Your task to perform on an android device: Open privacy settings Image 0: 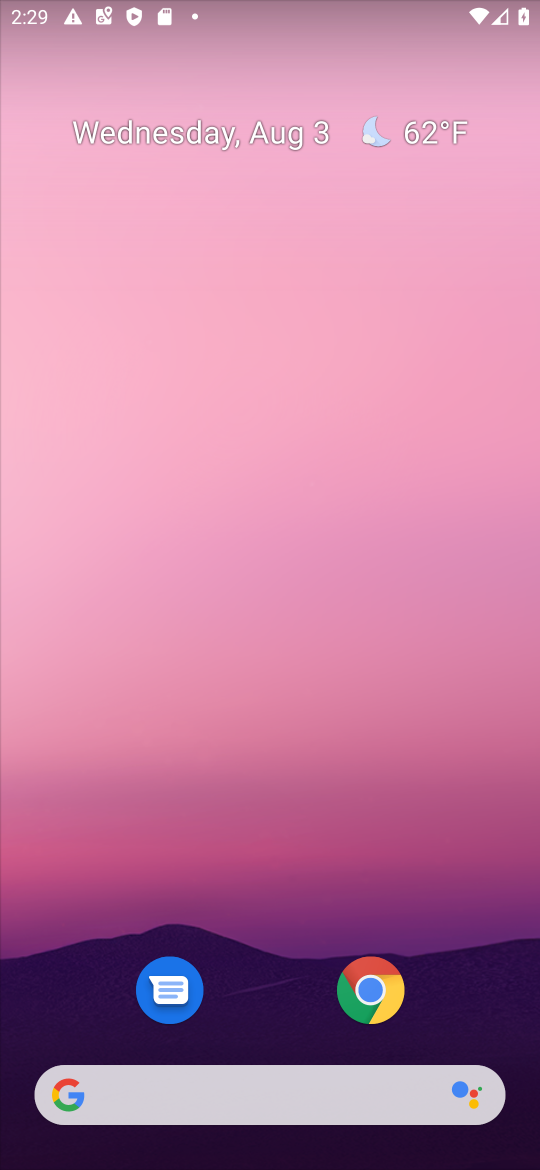
Step 0: drag from (274, 1088) to (398, 158)
Your task to perform on an android device: Open privacy settings Image 1: 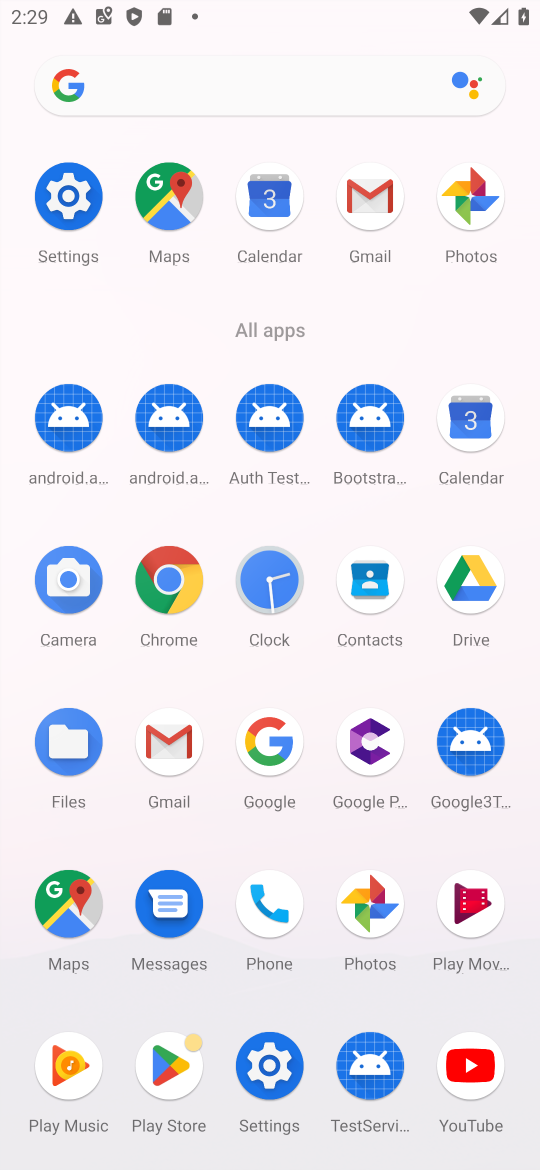
Step 1: click (67, 214)
Your task to perform on an android device: Open privacy settings Image 2: 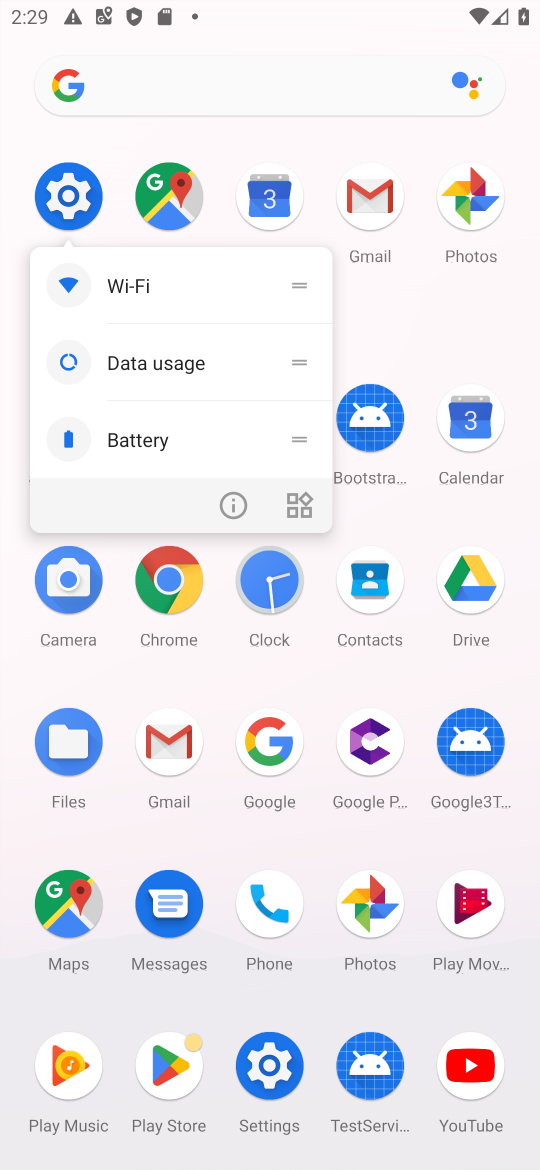
Step 2: click (57, 180)
Your task to perform on an android device: Open privacy settings Image 3: 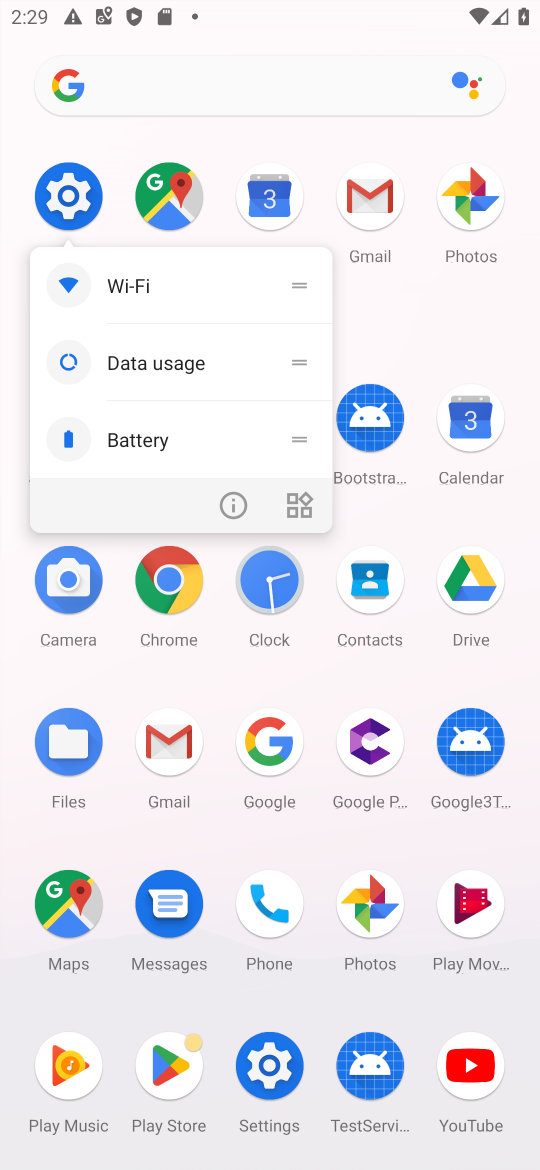
Step 3: click (75, 194)
Your task to perform on an android device: Open privacy settings Image 4: 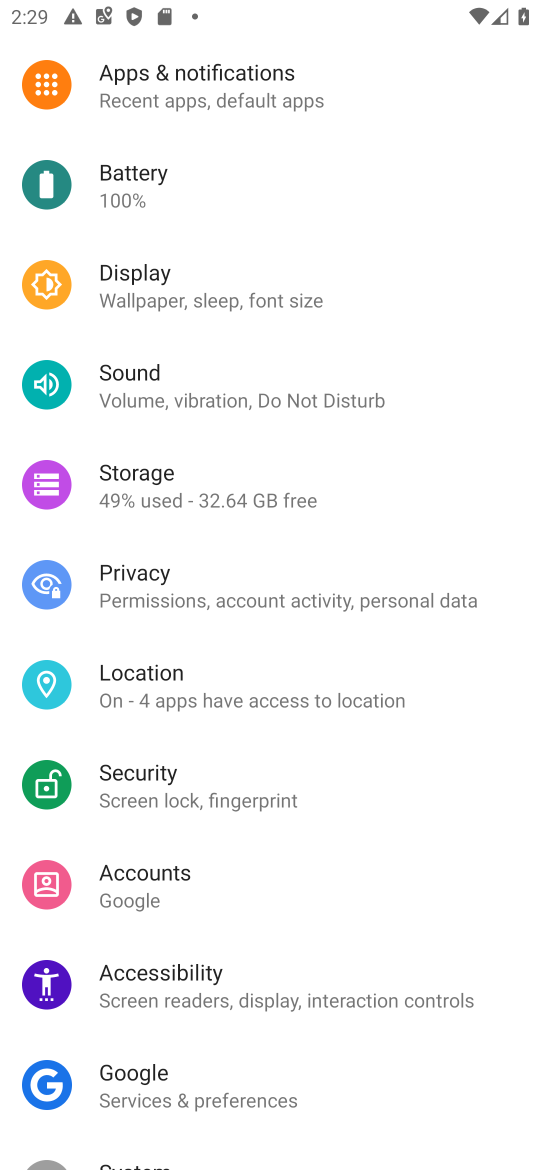
Step 4: click (195, 581)
Your task to perform on an android device: Open privacy settings Image 5: 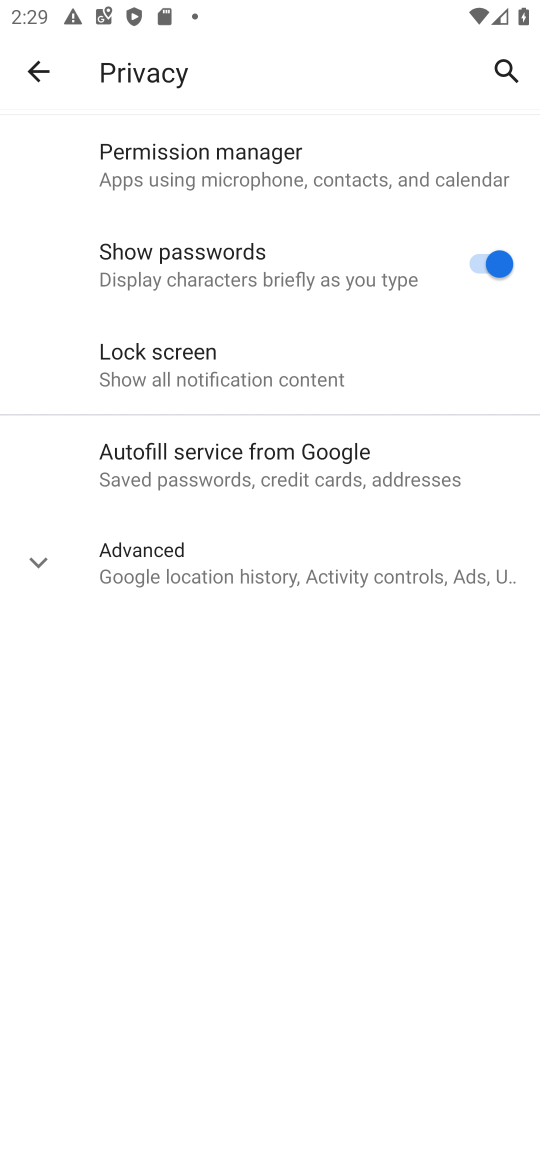
Step 5: click (170, 564)
Your task to perform on an android device: Open privacy settings Image 6: 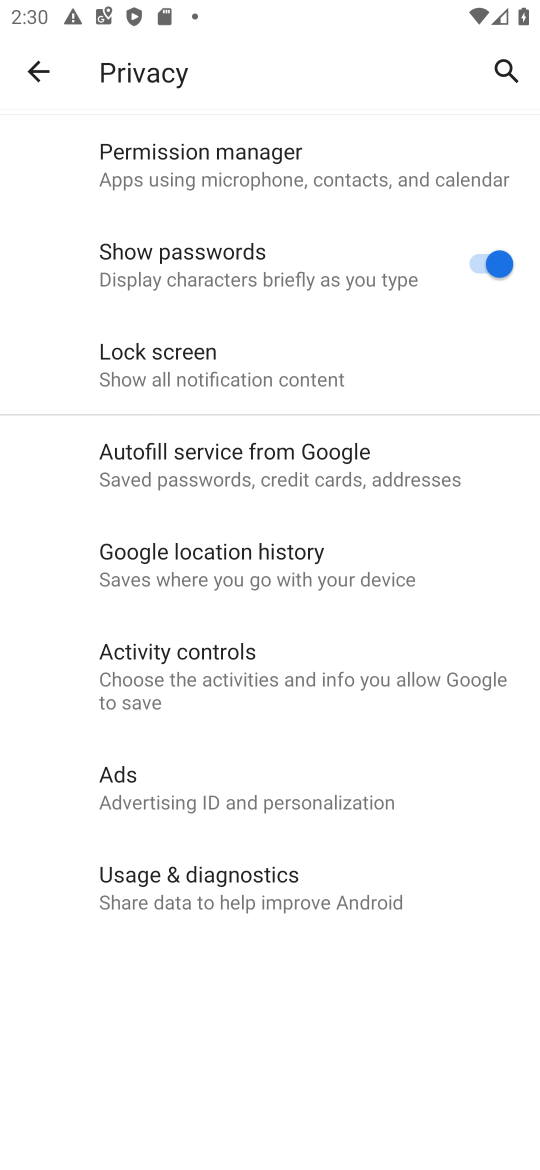
Step 6: task complete